Your task to perform on an android device: Google the capital of Panama Image 0: 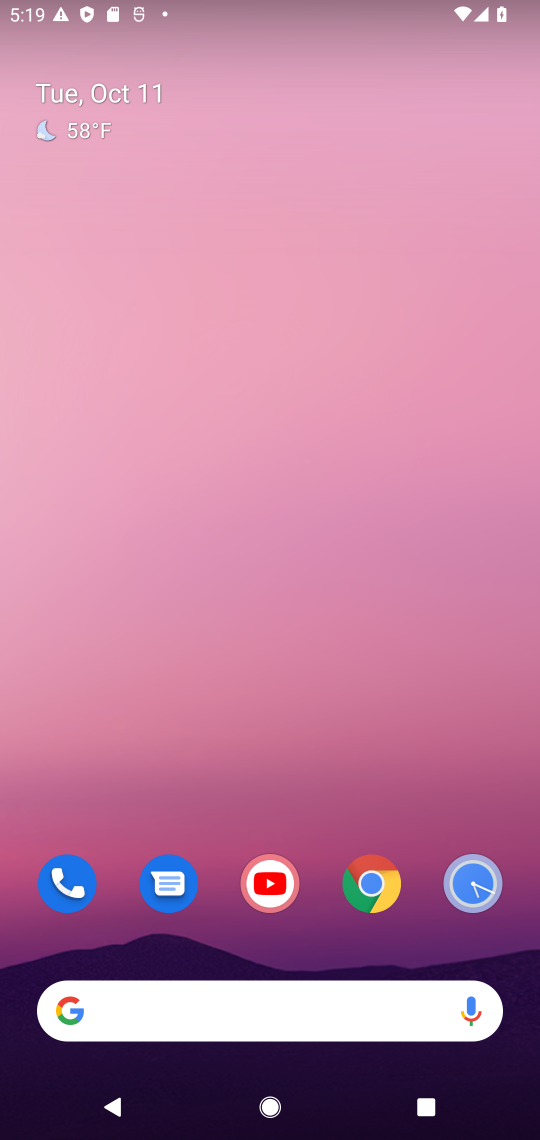
Step 0: drag from (316, 932) to (371, 153)
Your task to perform on an android device: Google the capital of Panama Image 1: 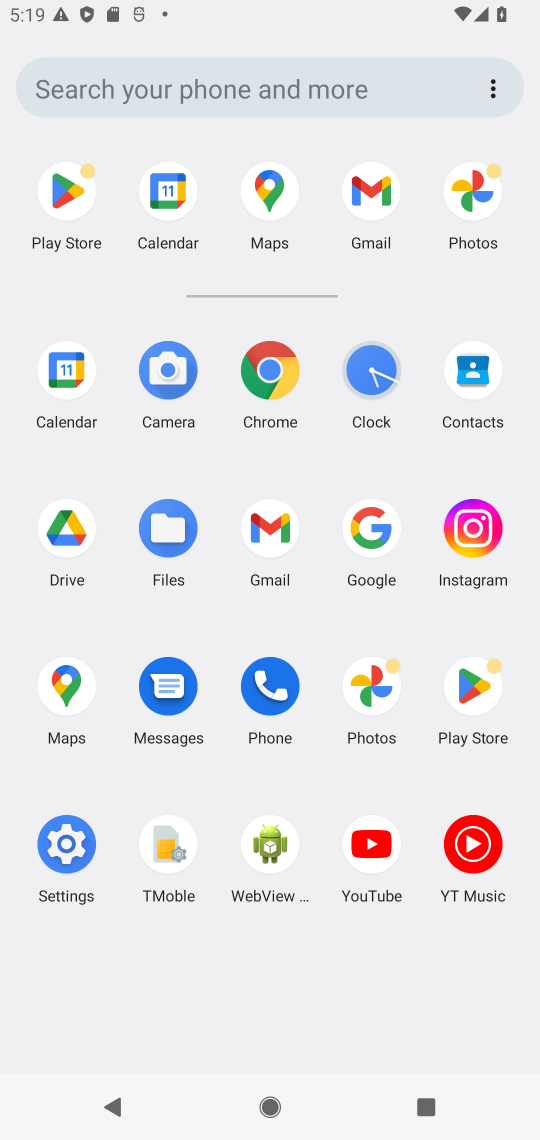
Step 1: click (388, 529)
Your task to perform on an android device: Google the capital of Panama Image 2: 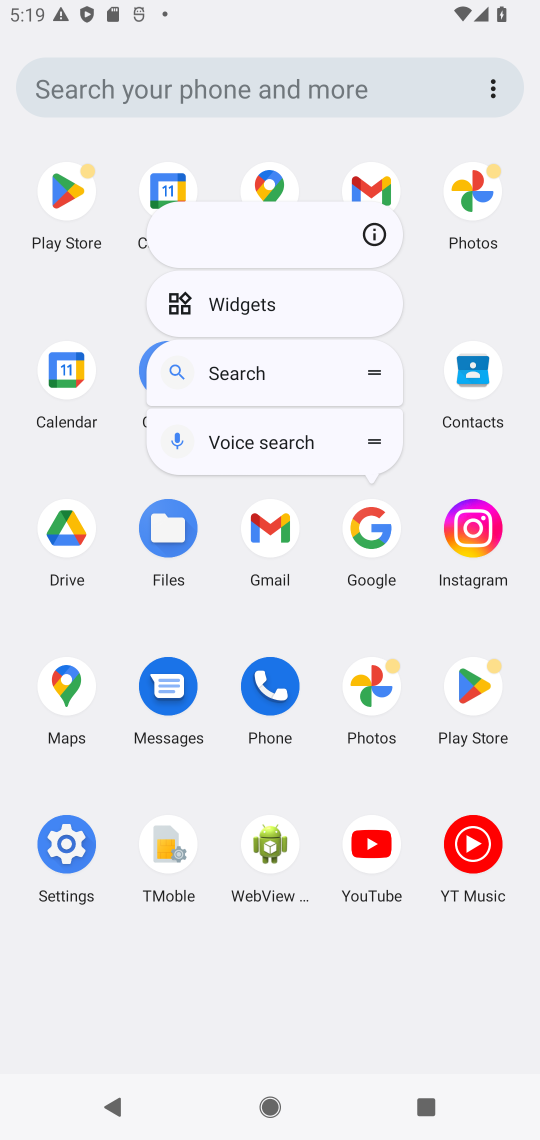
Step 2: click (365, 521)
Your task to perform on an android device: Google the capital of Panama Image 3: 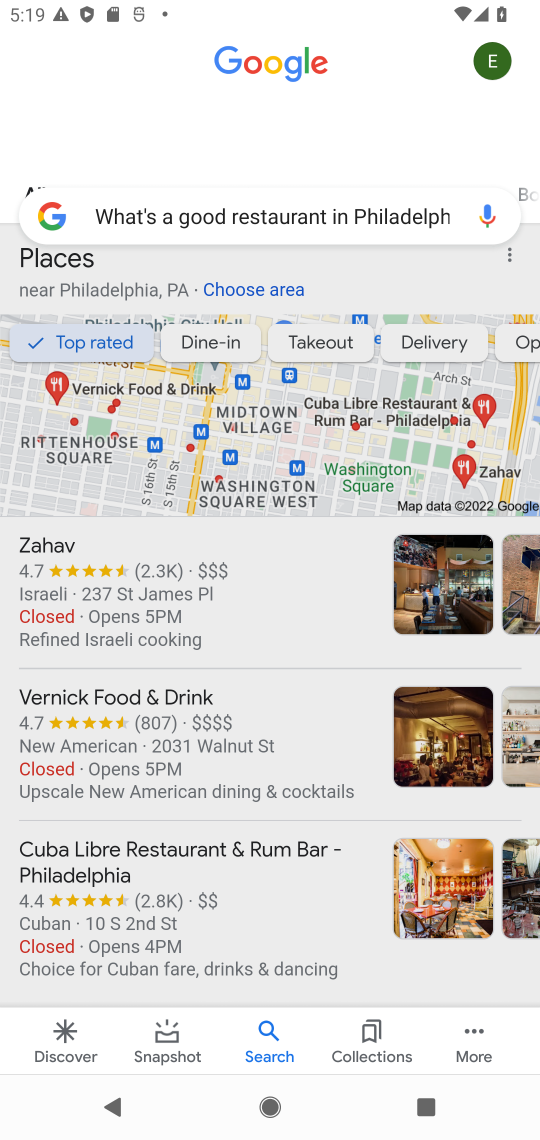
Step 3: click (285, 218)
Your task to perform on an android device: Google the capital of Panama Image 4: 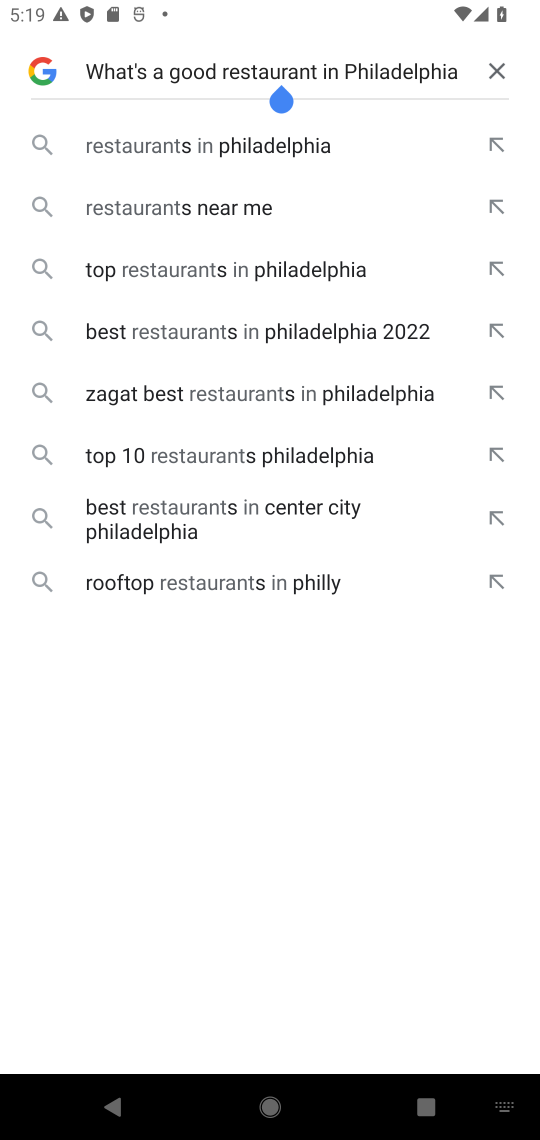
Step 4: click (499, 67)
Your task to perform on an android device: Google the capital of Panama Image 5: 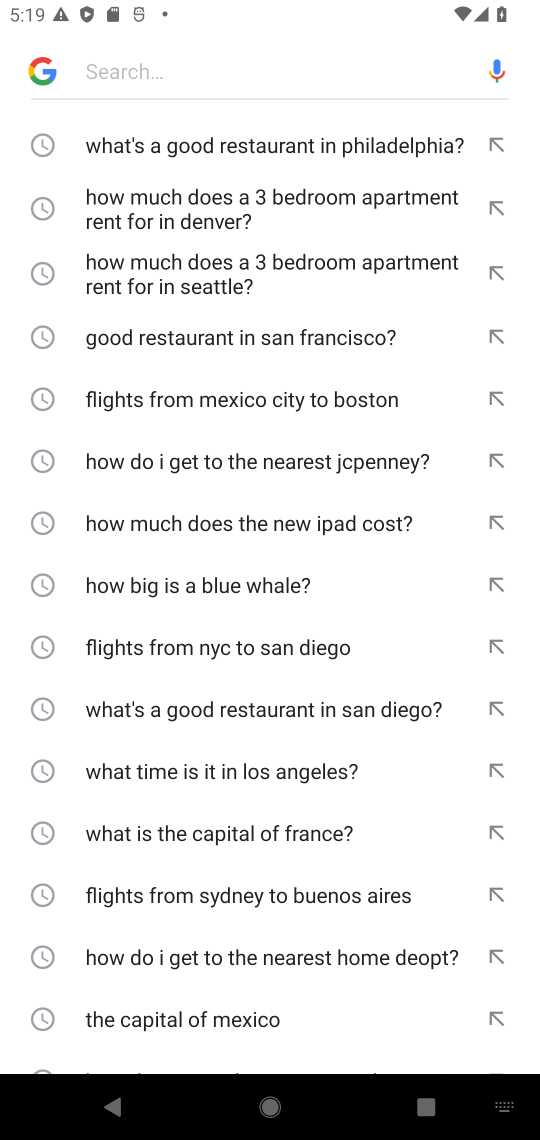
Step 5: type "the capital of Panama"
Your task to perform on an android device: Google the capital of Panama Image 6: 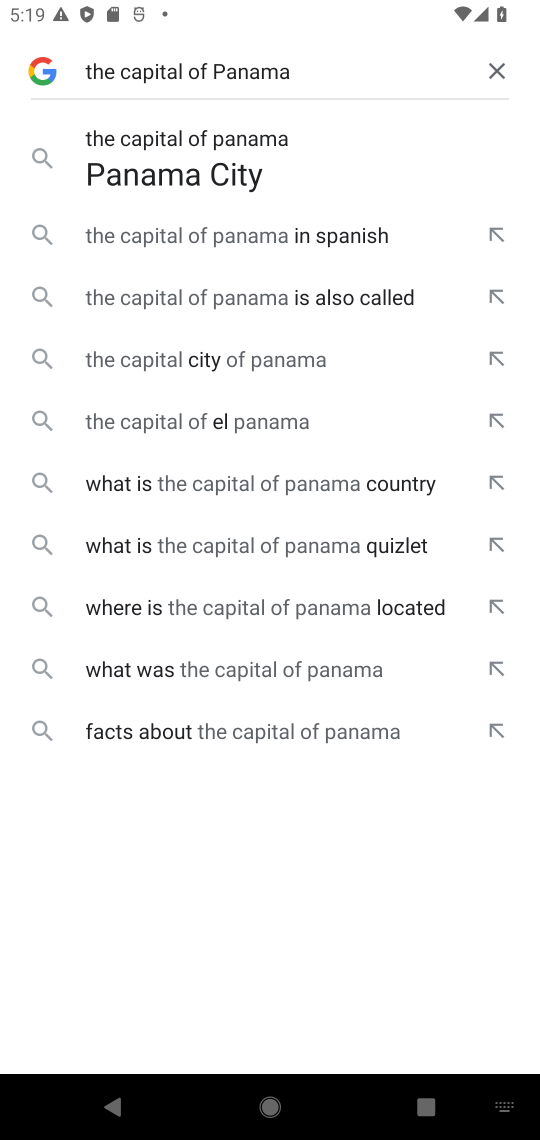
Step 6: press enter
Your task to perform on an android device: Google the capital of Panama Image 7: 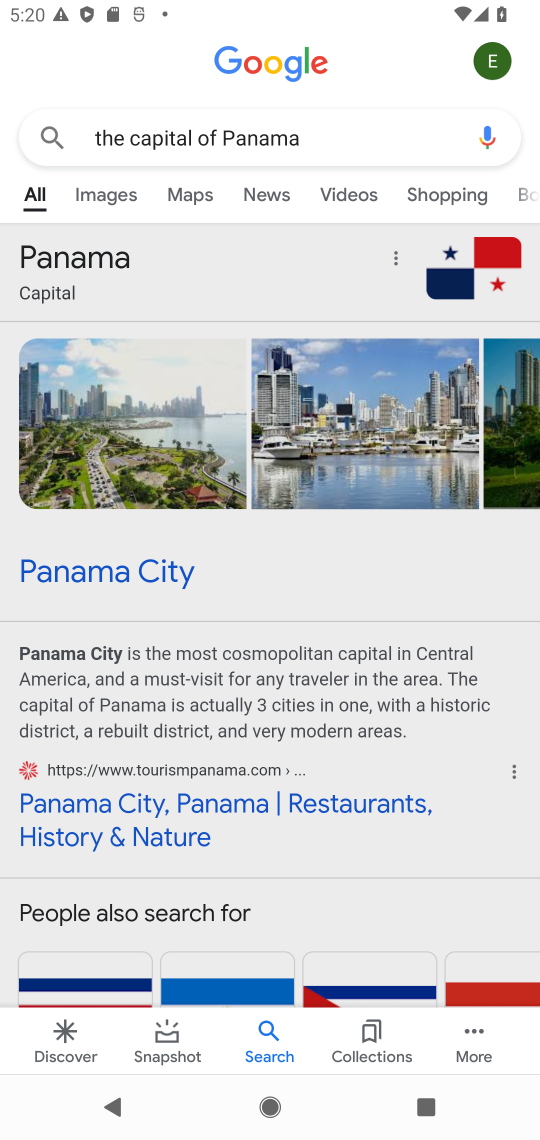
Step 7: task complete